Your task to perform on an android device: Open Chrome and go to the settings page Image 0: 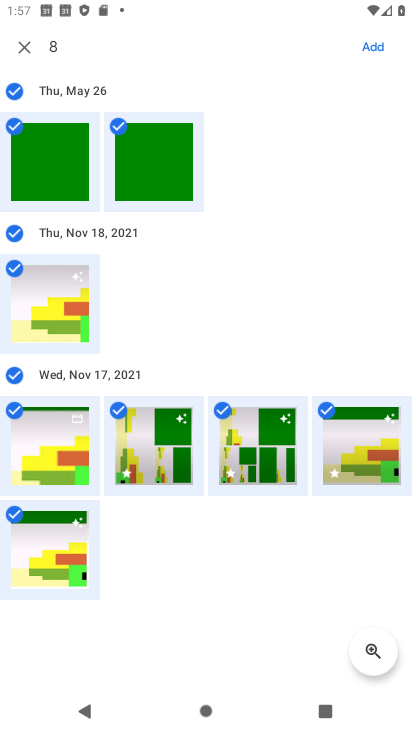
Step 0: click (361, 38)
Your task to perform on an android device: Open Chrome and go to the settings page Image 1: 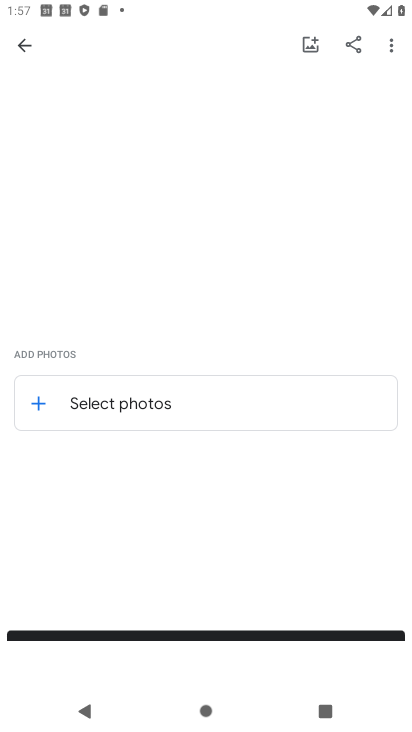
Step 1: press home button
Your task to perform on an android device: Open Chrome and go to the settings page Image 2: 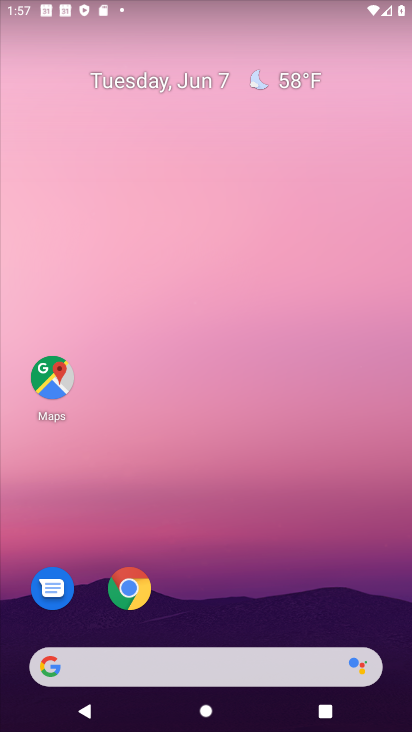
Step 2: click (116, 580)
Your task to perform on an android device: Open Chrome and go to the settings page Image 3: 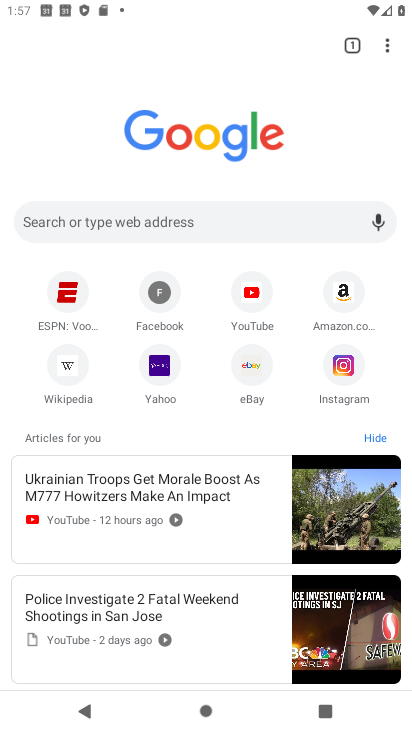
Step 3: click (385, 45)
Your task to perform on an android device: Open Chrome and go to the settings page Image 4: 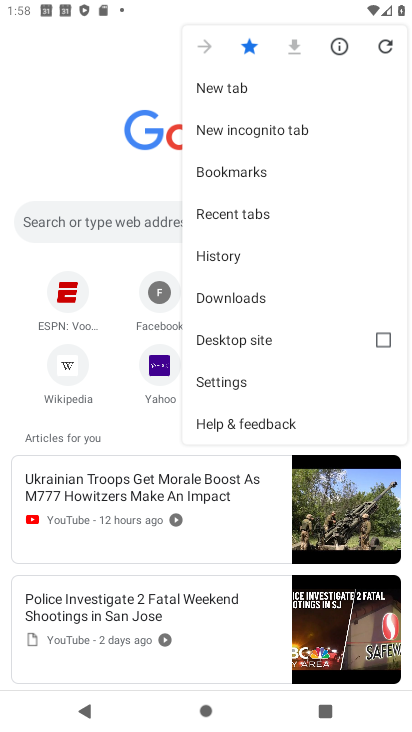
Step 4: click (262, 369)
Your task to perform on an android device: Open Chrome and go to the settings page Image 5: 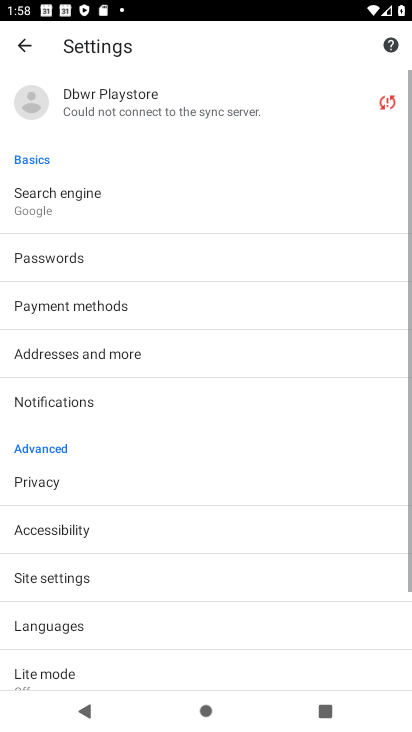
Step 5: task complete